Your task to perform on an android device: Open Google Maps and go to "Timeline" Image 0: 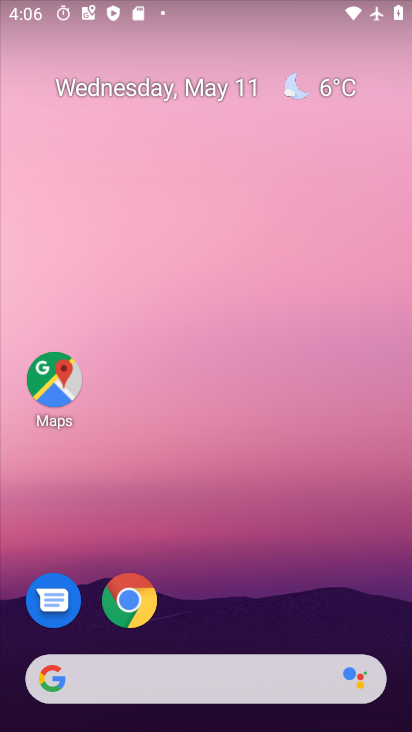
Step 0: drag from (369, 610) to (309, 194)
Your task to perform on an android device: Open Google Maps and go to "Timeline" Image 1: 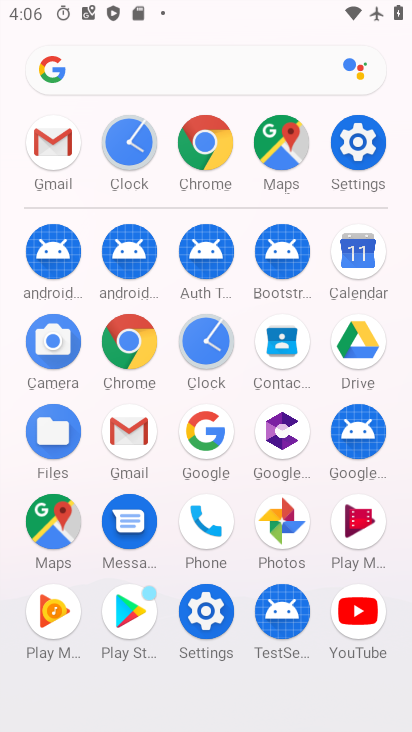
Step 1: click (54, 516)
Your task to perform on an android device: Open Google Maps and go to "Timeline" Image 2: 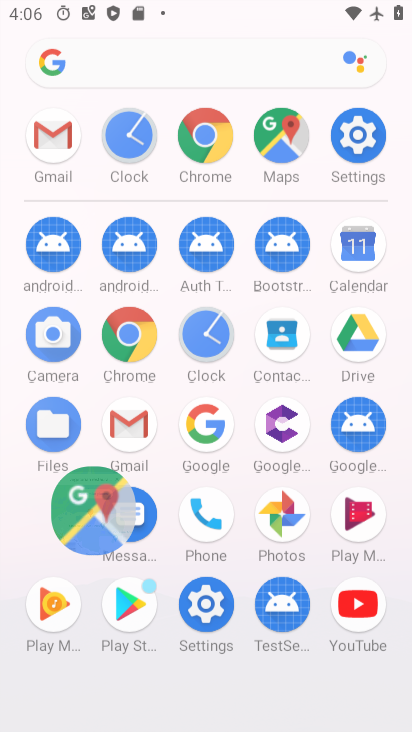
Step 2: click (55, 511)
Your task to perform on an android device: Open Google Maps and go to "Timeline" Image 3: 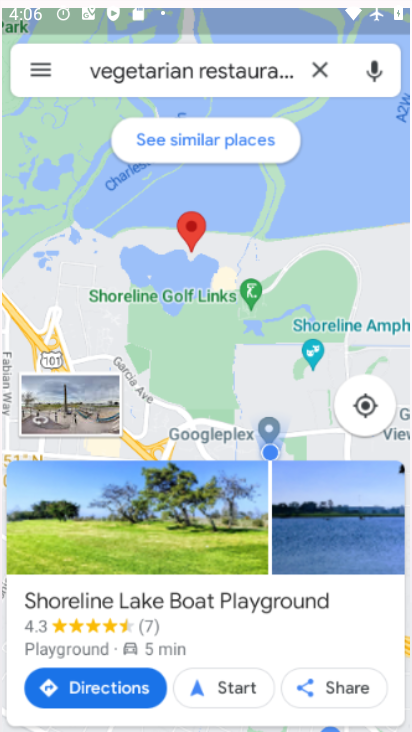
Step 3: click (55, 511)
Your task to perform on an android device: Open Google Maps and go to "Timeline" Image 4: 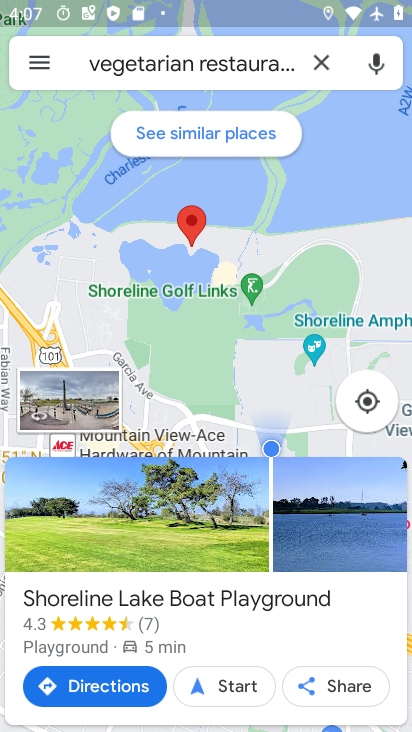
Step 4: click (45, 59)
Your task to perform on an android device: Open Google Maps and go to "Timeline" Image 5: 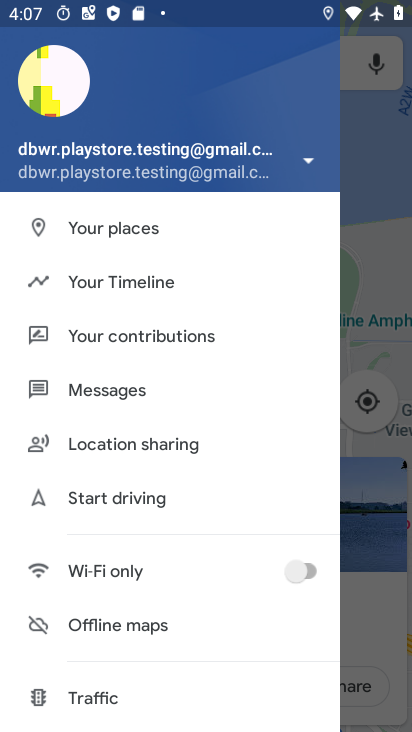
Step 5: click (146, 280)
Your task to perform on an android device: Open Google Maps and go to "Timeline" Image 6: 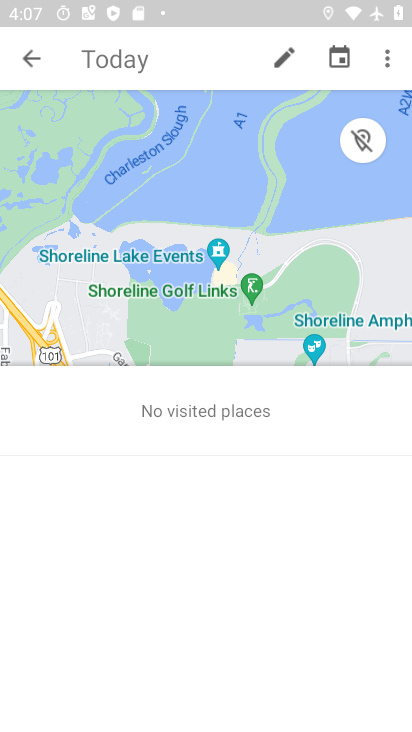
Step 6: click (388, 60)
Your task to perform on an android device: Open Google Maps and go to "Timeline" Image 7: 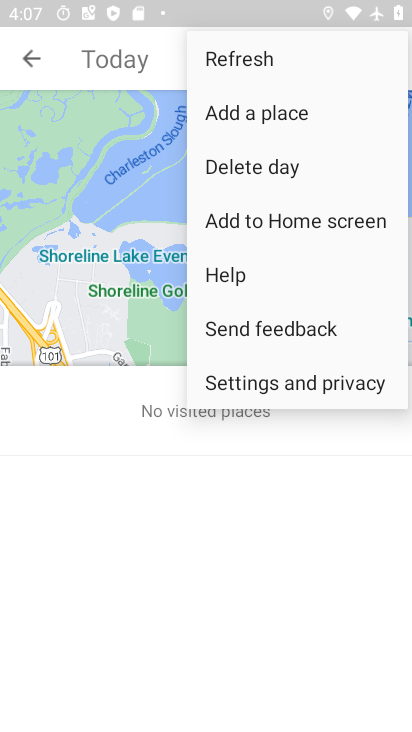
Step 7: click (99, 287)
Your task to perform on an android device: Open Google Maps and go to "Timeline" Image 8: 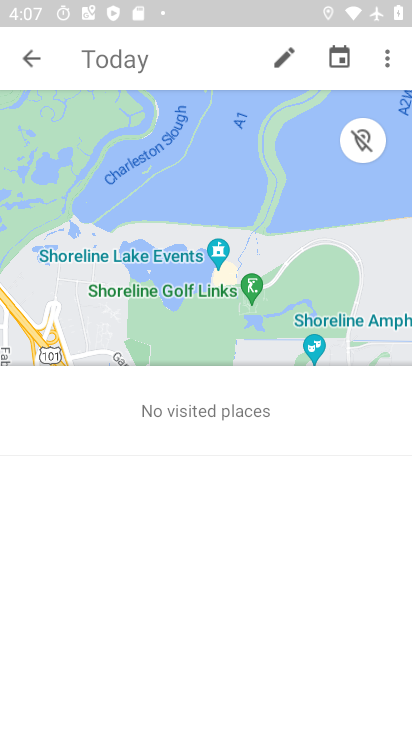
Step 8: click (29, 58)
Your task to perform on an android device: Open Google Maps and go to "Timeline" Image 9: 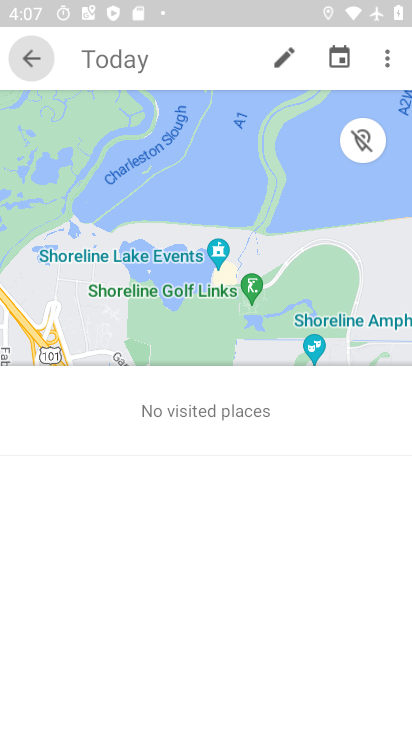
Step 9: click (28, 59)
Your task to perform on an android device: Open Google Maps and go to "Timeline" Image 10: 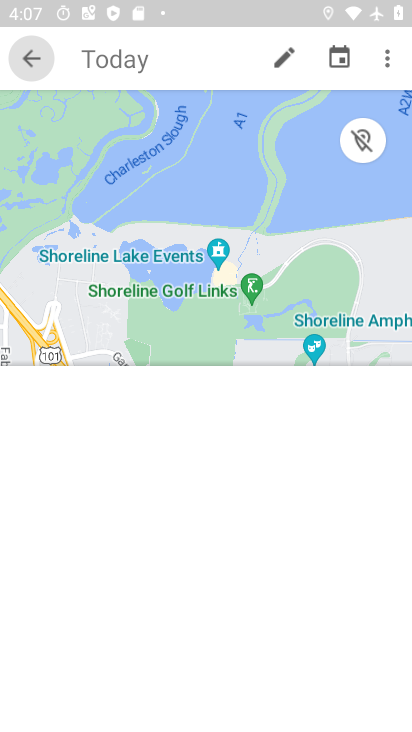
Step 10: click (26, 60)
Your task to perform on an android device: Open Google Maps and go to "Timeline" Image 11: 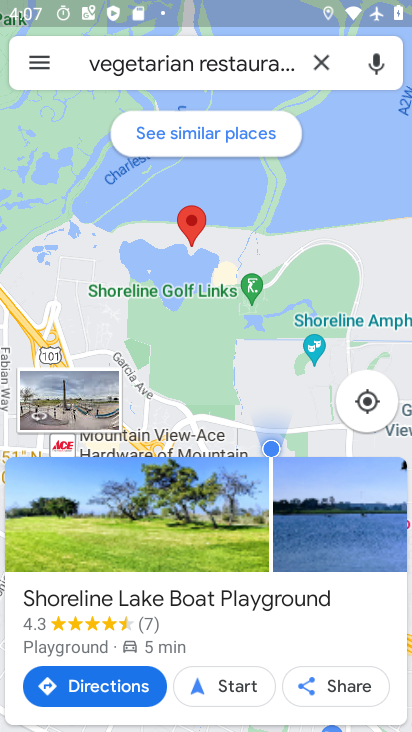
Step 11: click (29, 61)
Your task to perform on an android device: Open Google Maps and go to "Timeline" Image 12: 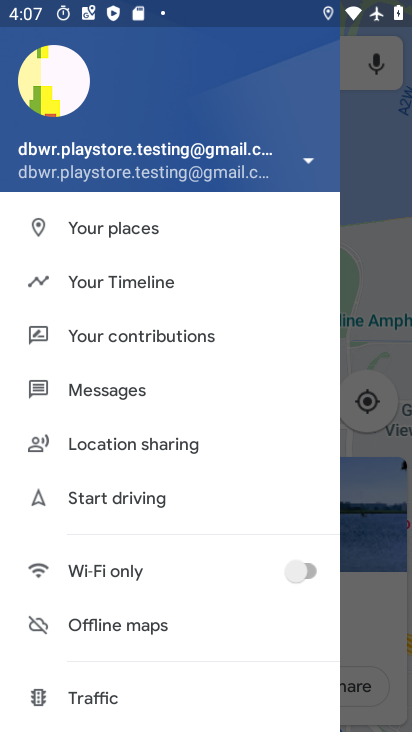
Step 12: click (163, 283)
Your task to perform on an android device: Open Google Maps and go to "Timeline" Image 13: 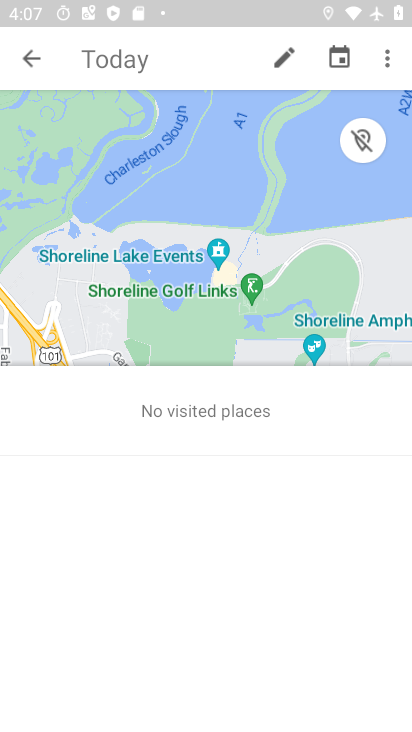
Step 13: task complete